Your task to perform on an android device: turn off improve location accuracy Image 0: 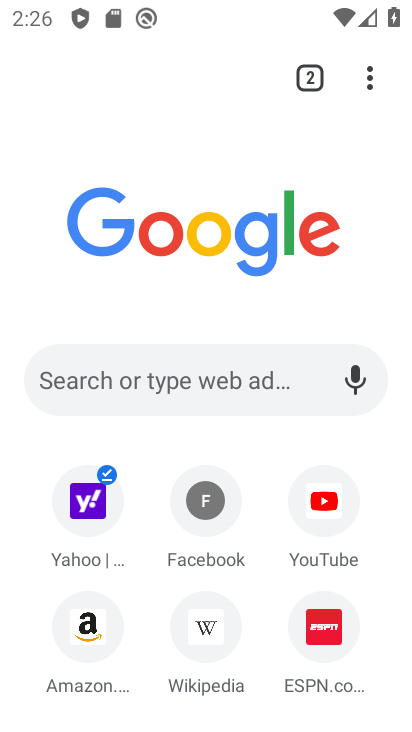
Step 0: press home button
Your task to perform on an android device: turn off improve location accuracy Image 1: 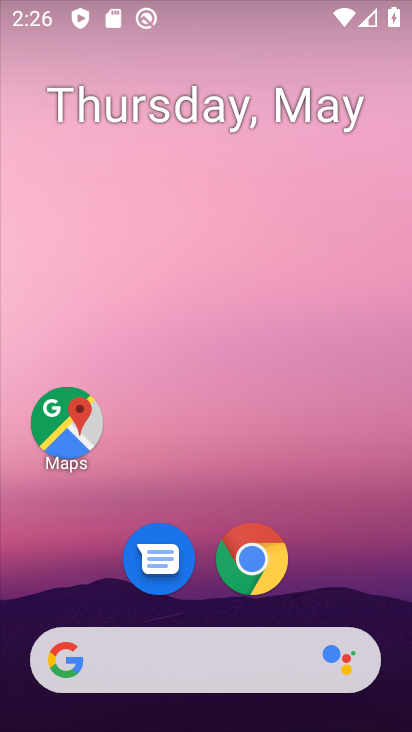
Step 1: drag from (196, 608) to (219, 225)
Your task to perform on an android device: turn off improve location accuracy Image 2: 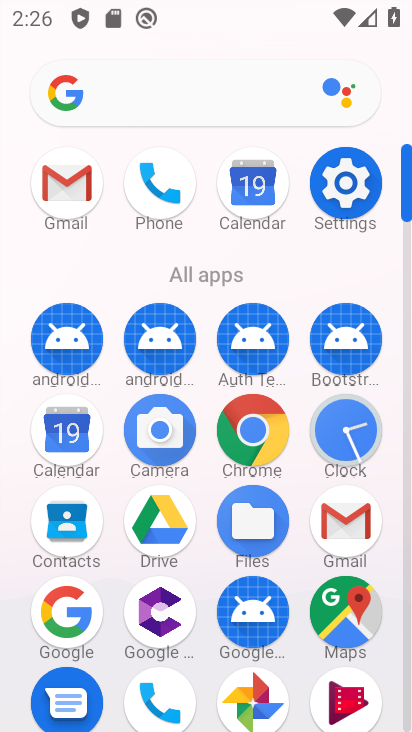
Step 2: click (380, 199)
Your task to perform on an android device: turn off improve location accuracy Image 3: 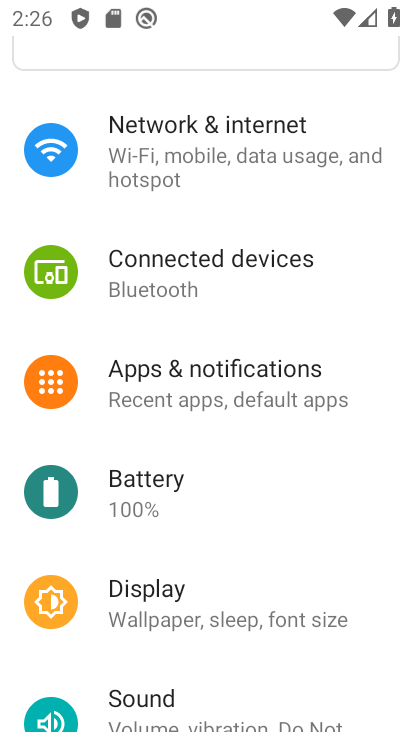
Step 3: drag from (215, 605) to (241, 361)
Your task to perform on an android device: turn off improve location accuracy Image 4: 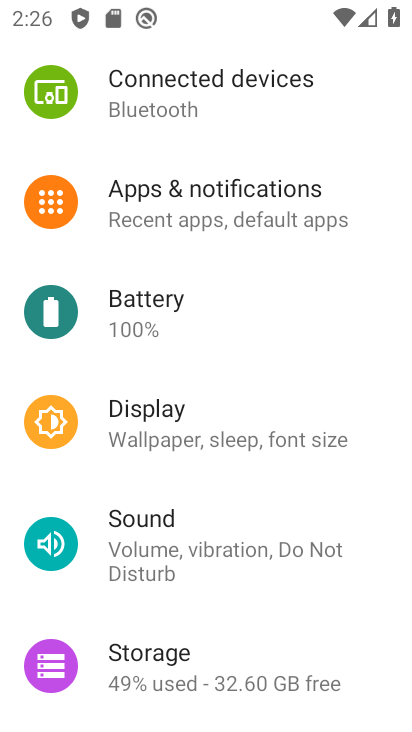
Step 4: drag from (235, 574) to (239, 356)
Your task to perform on an android device: turn off improve location accuracy Image 5: 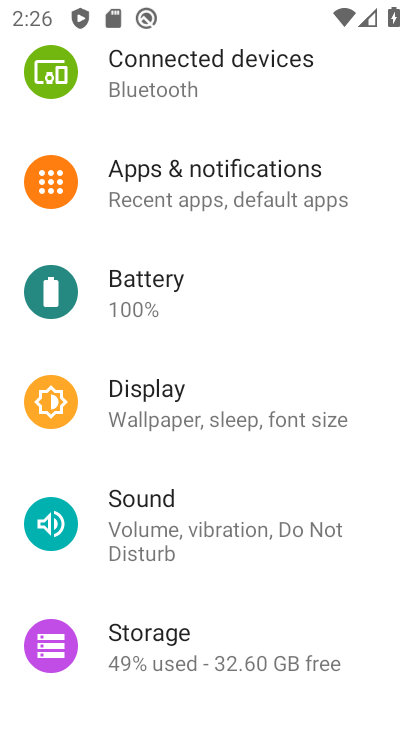
Step 5: drag from (255, 220) to (257, 541)
Your task to perform on an android device: turn off improve location accuracy Image 6: 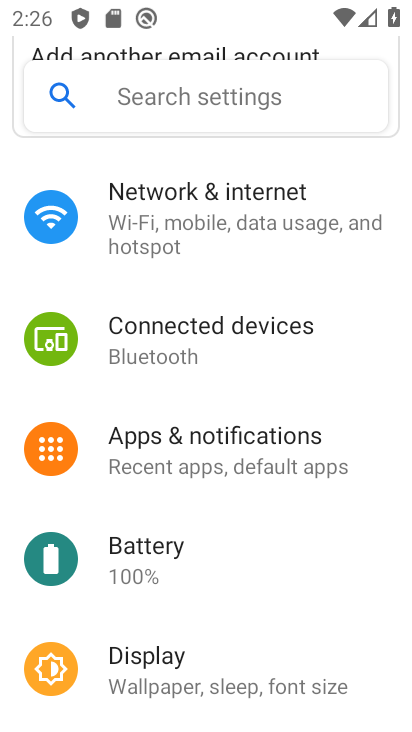
Step 6: drag from (224, 539) to (233, 302)
Your task to perform on an android device: turn off improve location accuracy Image 7: 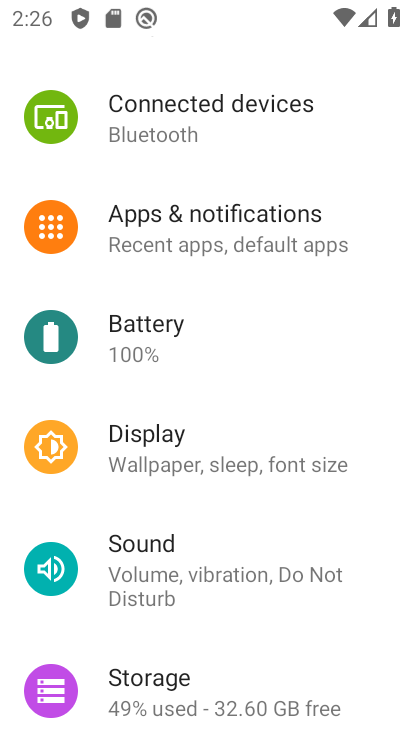
Step 7: drag from (234, 497) to (246, 274)
Your task to perform on an android device: turn off improve location accuracy Image 8: 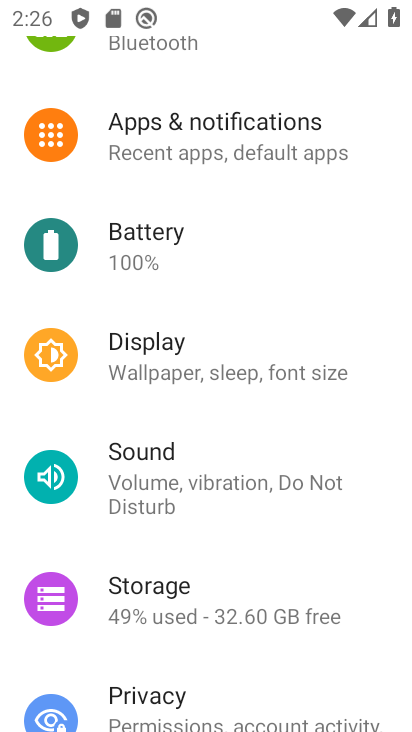
Step 8: drag from (242, 539) to (232, 295)
Your task to perform on an android device: turn off improve location accuracy Image 9: 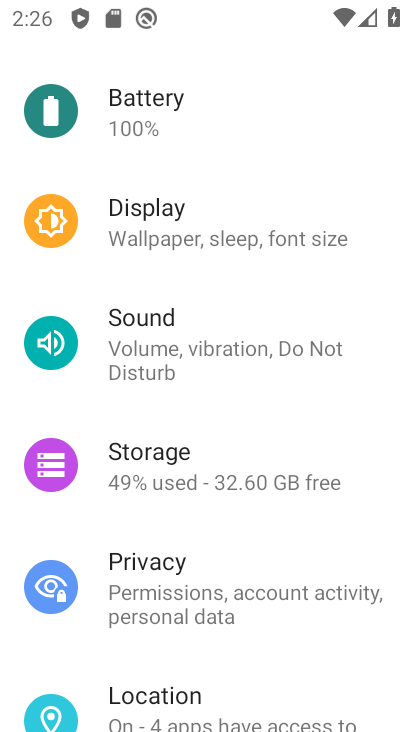
Step 9: drag from (225, 577) to (236, 384)
Your task to perform on an android device: turn off improve location accuracy Image 10: 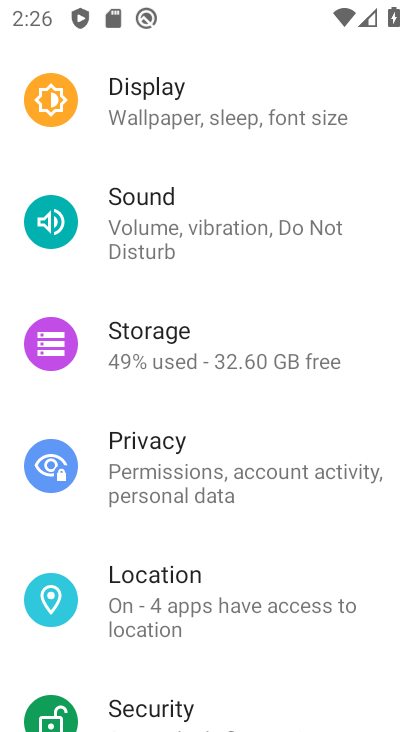
Step 10: click (217, 600)
Your task to perform on an android device: turn off improve location accuracy Image 11: 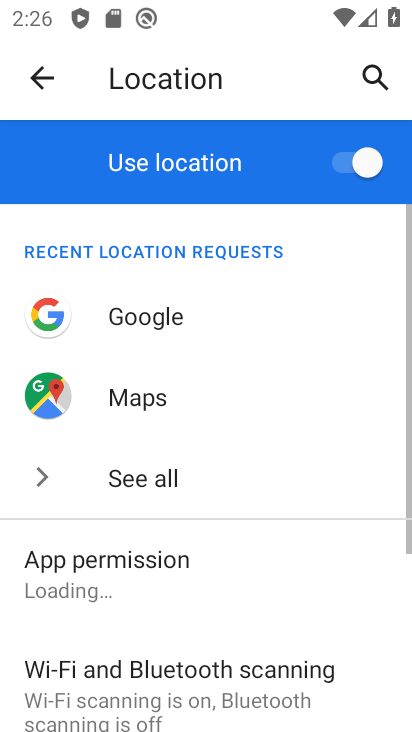
Step 11: drag from (221, 603) to (223, 464)
Your task to perform on an android device: turn off improve location accuracy Image 12: 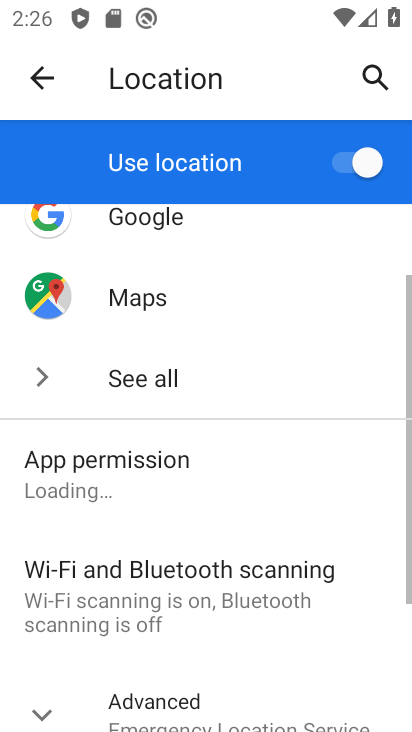
Step 12: drag from (199, 644) to (199, 387)
Your task to perform on an android device: turn off improve location accuracy Image 13: 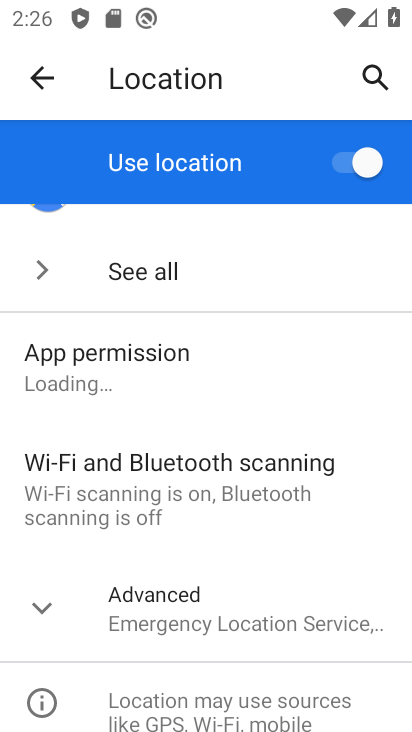
Step 13: click (170, 622)
Your task to perform on an android device: turn off improve location accuracy Image 14: 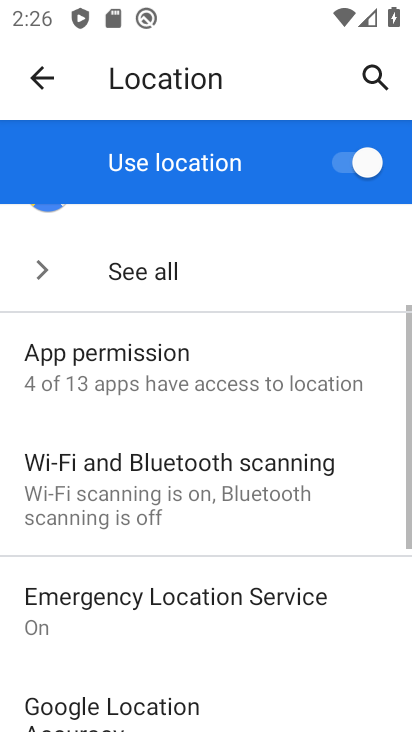
Step 14: drag from (170, 622) to (203, 342)
Your task to perform on an android device: turn off improve location accuracy Image 15: 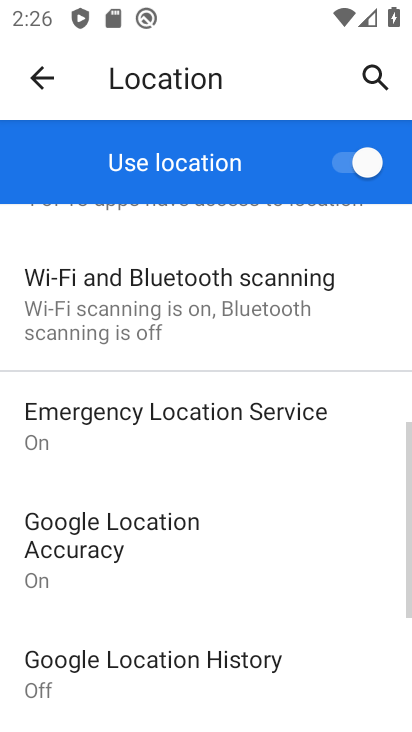
Step 15: drag from (161, 637) to (176, 507)
Your task to perform on an android device: turn off improve location accuracy Image 16: 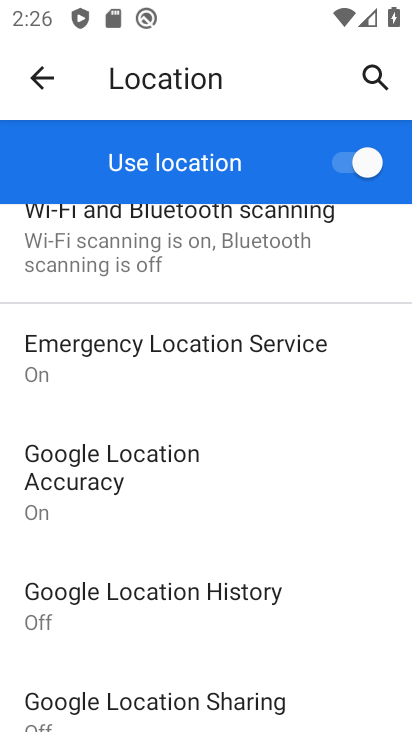
Step 16: click (173, 499)
Your task to perform on an android device: turn off improve location accuracy Image 17: 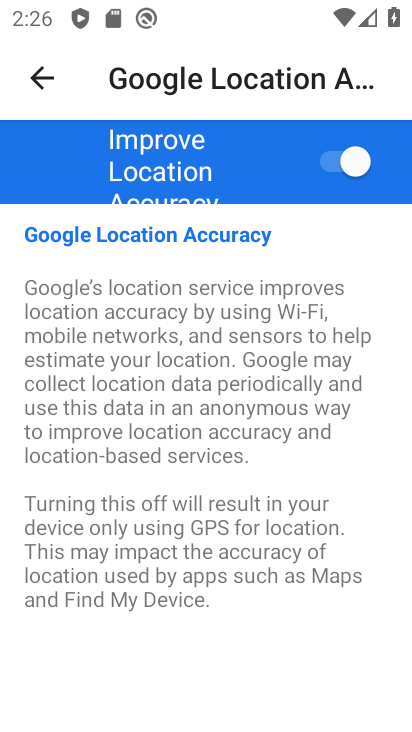
Step 17: click (322, 178)
Your task to perform on an android device: turn off improve location accuracy Image 18: 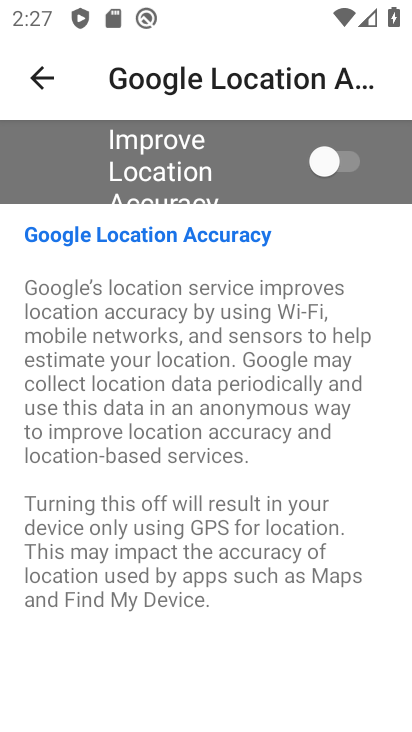
Step 18: task complete